Your task to perform on an android device: turn off translation in the chrome app Image 0: 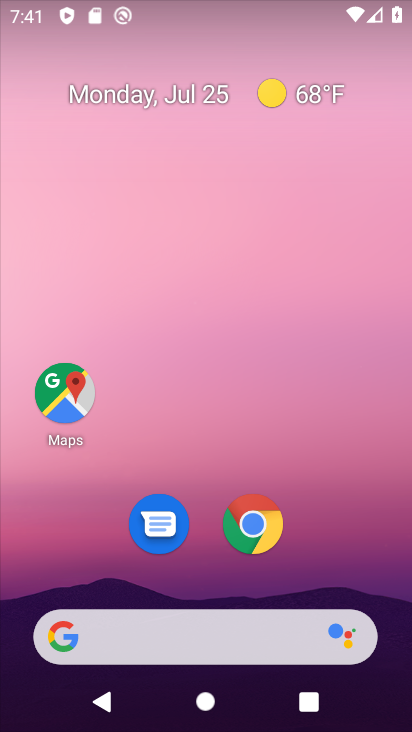
Step 0: click (269, 517)
Your task to perform on an android device: turn off translation in the chrome app Image 1: 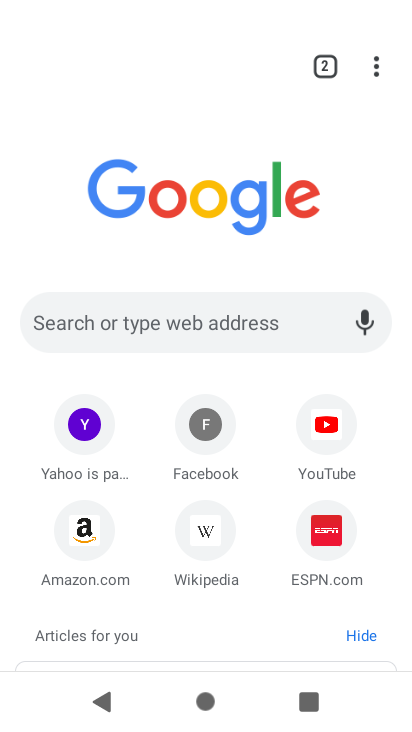
Step 1: click (374, 62)
Your task to perform on an android device: turn off translation in the chrome app Image 2: 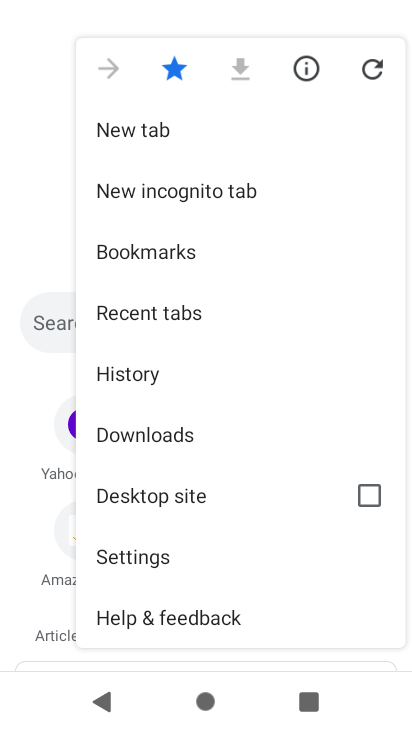
Step 2: click (151, 558)
Your task to perform on an android device: turn off translation in the chrome app Image 3: 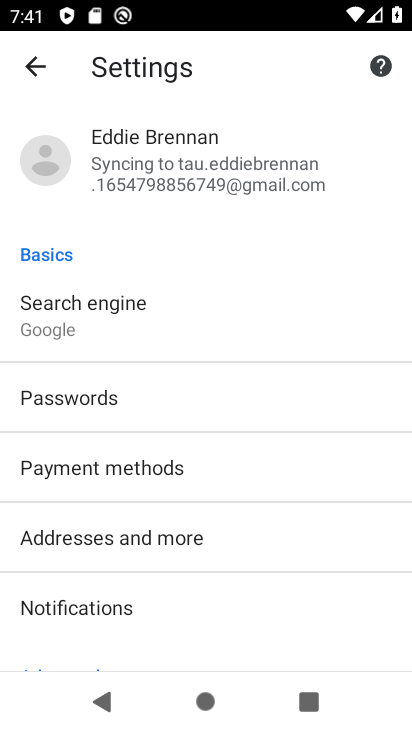
Step 3: drag from (222, 564) to (269, 253)
Your task to perform on an android device: turn off translation in the chrome app Image 4: 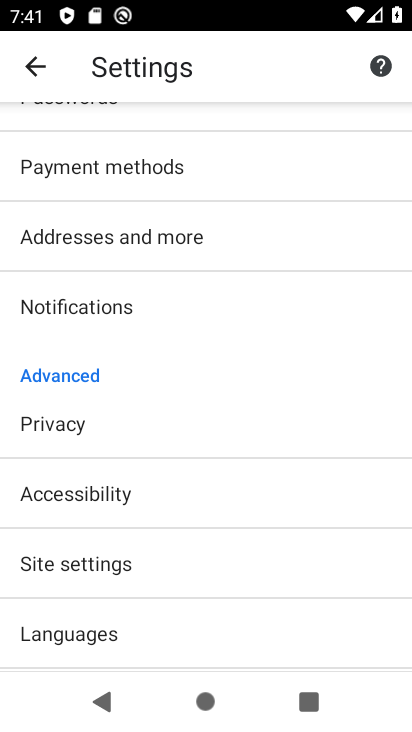
Step 4: click (162, 630)
Your task to perform on an android device: turn off translation in the chrome app Image 5: 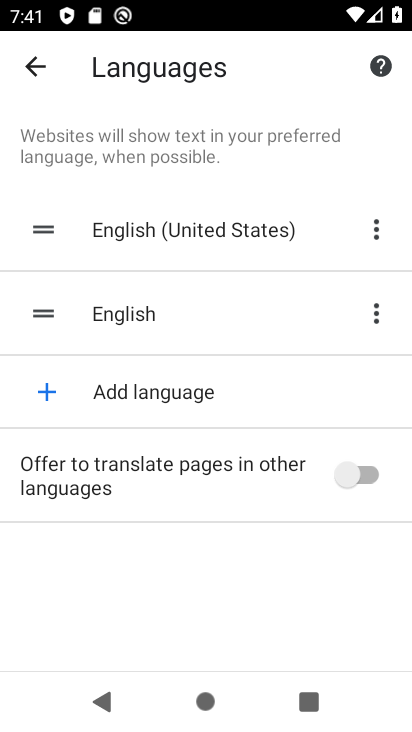
Step 5: task complete